Your task to perform on an android device: toggle notification dots Image 0: 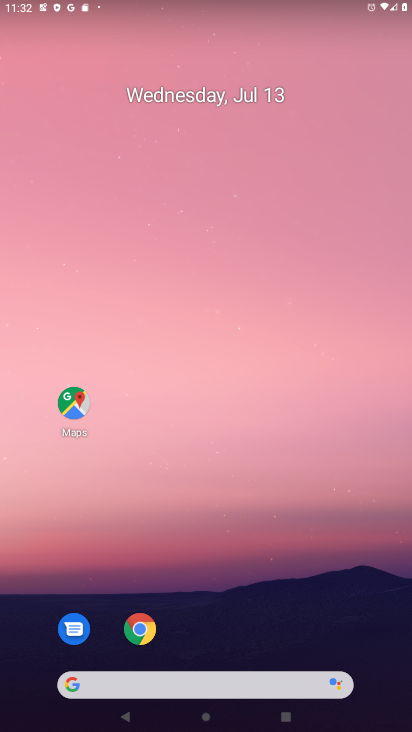
Step 0: drag from (251, 612) to (270, 300)
Your task to perform on an android device: toggle notification dots Image 1: 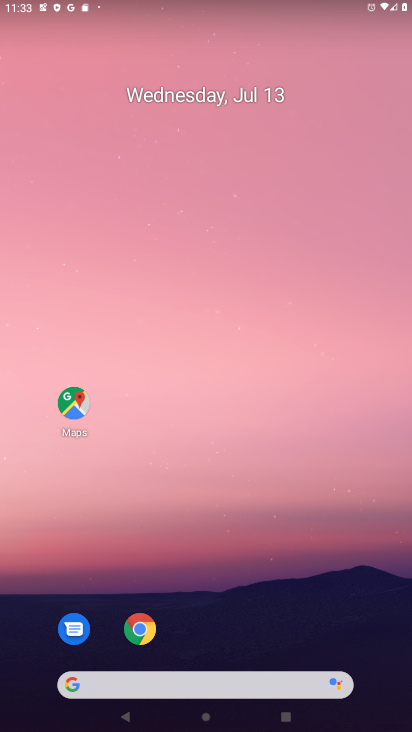
Step 1: drag from (240, 619) to (251, 275)
Your task to perform on an android device: toggle notification dots Image 2: 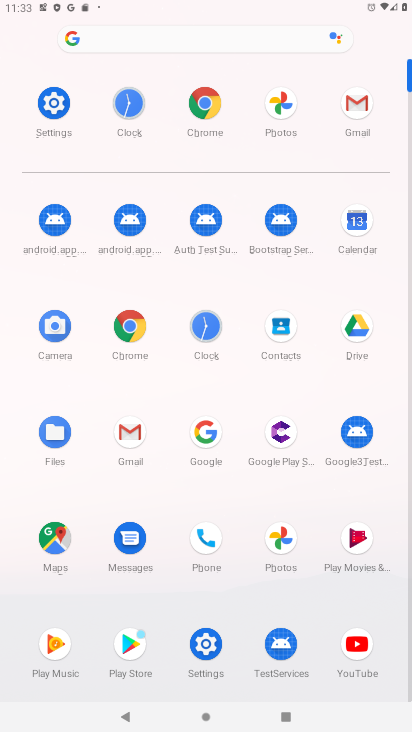
Step 2: click (206, 636)
Your task to perform on an android device: toggle notification dots Image 3: 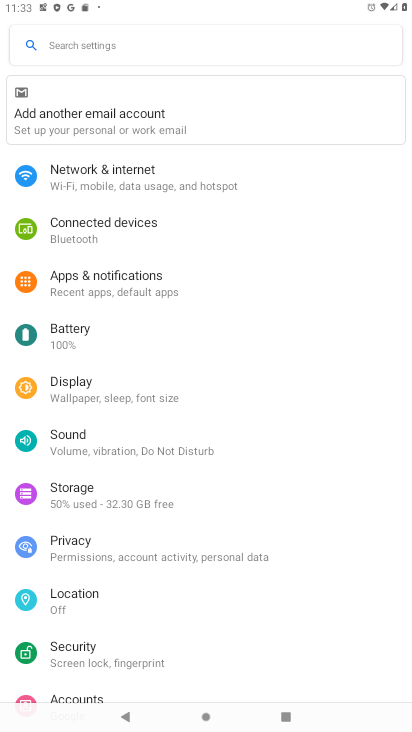
Step 3: click (118, 279)
Your task to perform on an android device: toggle notification dots Image 4: 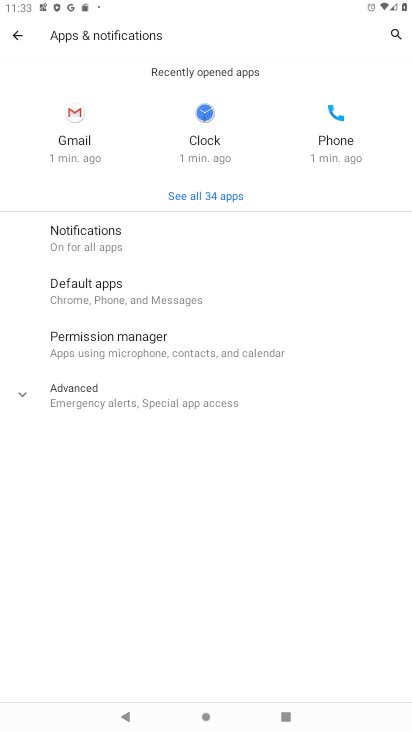
Step 4: click (100, 392)
Your task to perform on an android device: toggle notification dots Image 5: 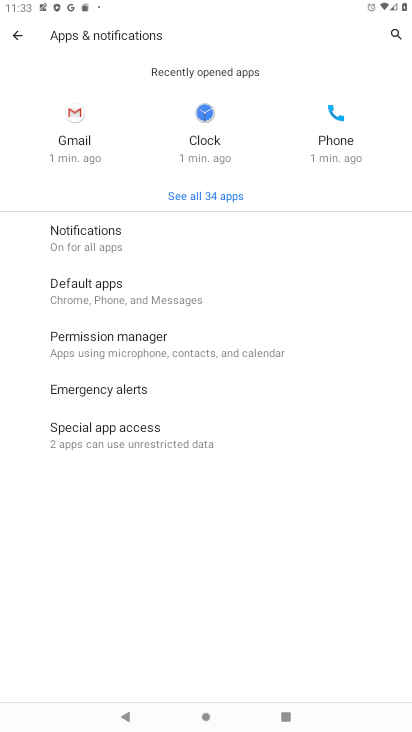
Step 5: click (124, 243)
Your task to perform on an android device: toggle notification dots Image 6: 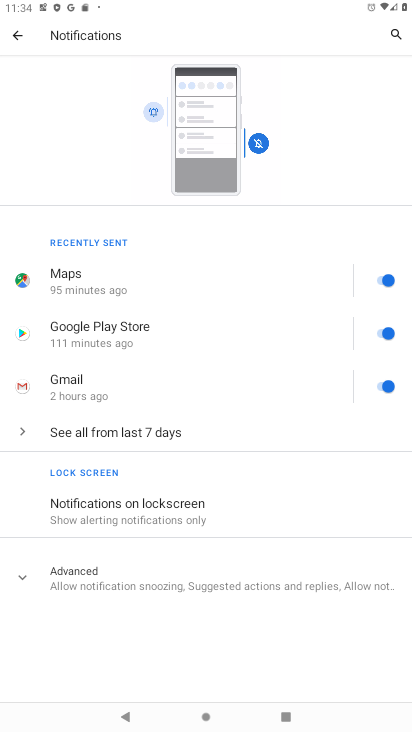
Step 6: click (152, 570)
Your task to perform on an android device: toggle notification dots Image 7: 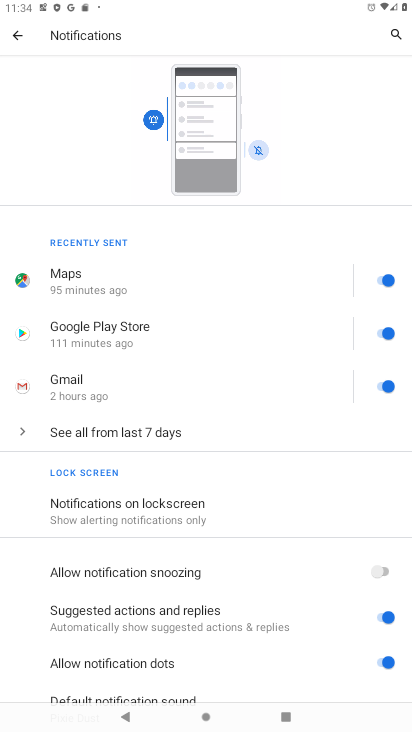
Step 7: click (351, 658)
Your task to perform on an android device: toggle notification dots Image 8: 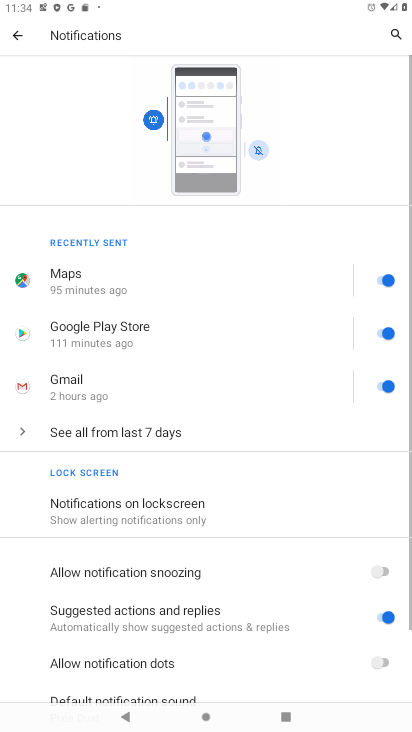
Step 8: task complete